Your task to perform on an android device: Open the web browser Image 0: 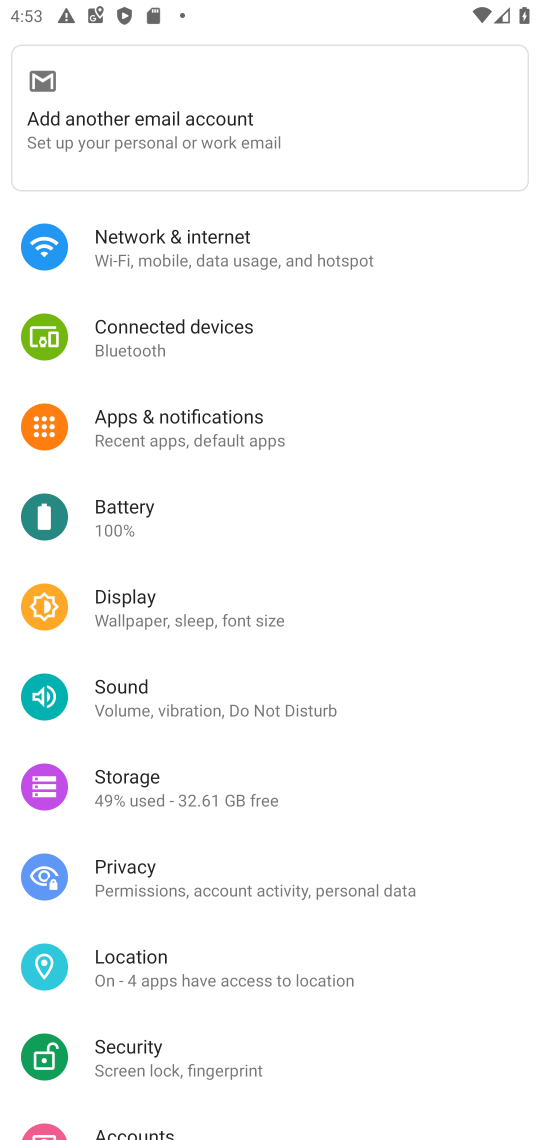
Step 0: press home button
Your task to perform on an android device: Open the web browser Image 1: 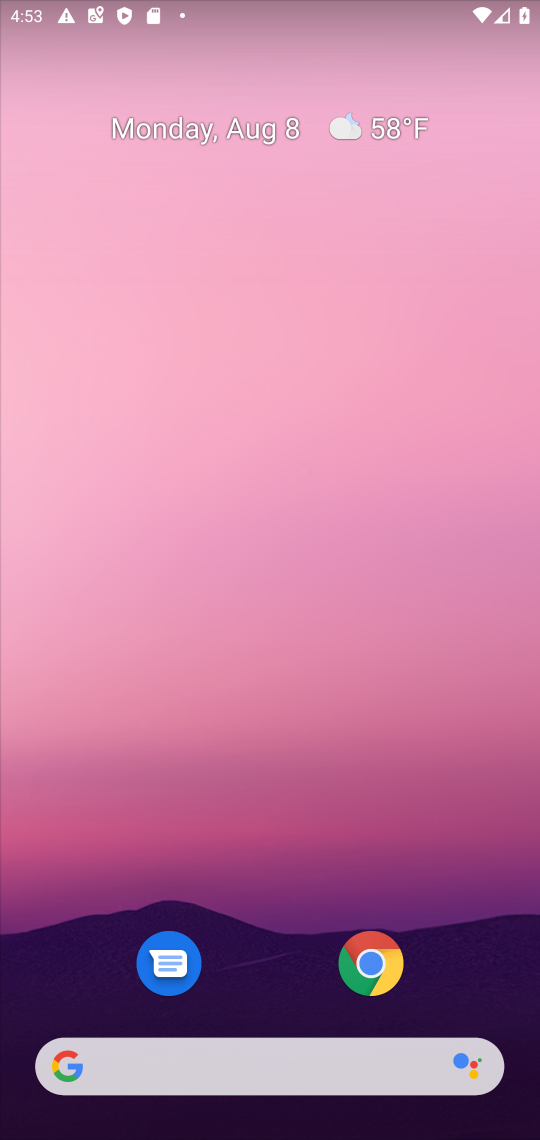
Step 1: click (367, 941)
Your task to perform on an android device: Open the web browser Image 2: 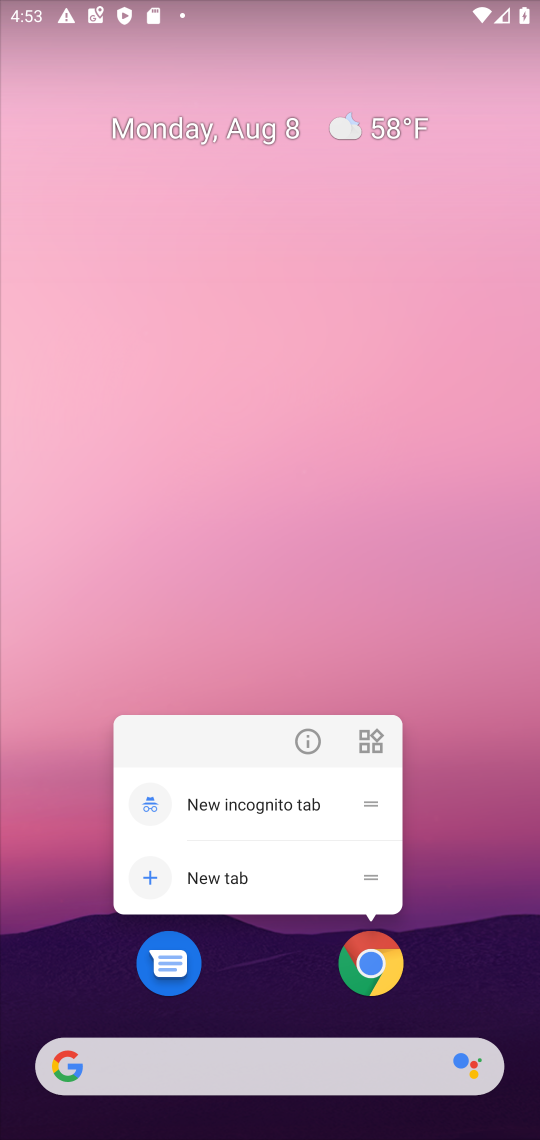
Step 2: click (400, 957)
Your task to perform on an android device: Open the web browser Image 3: 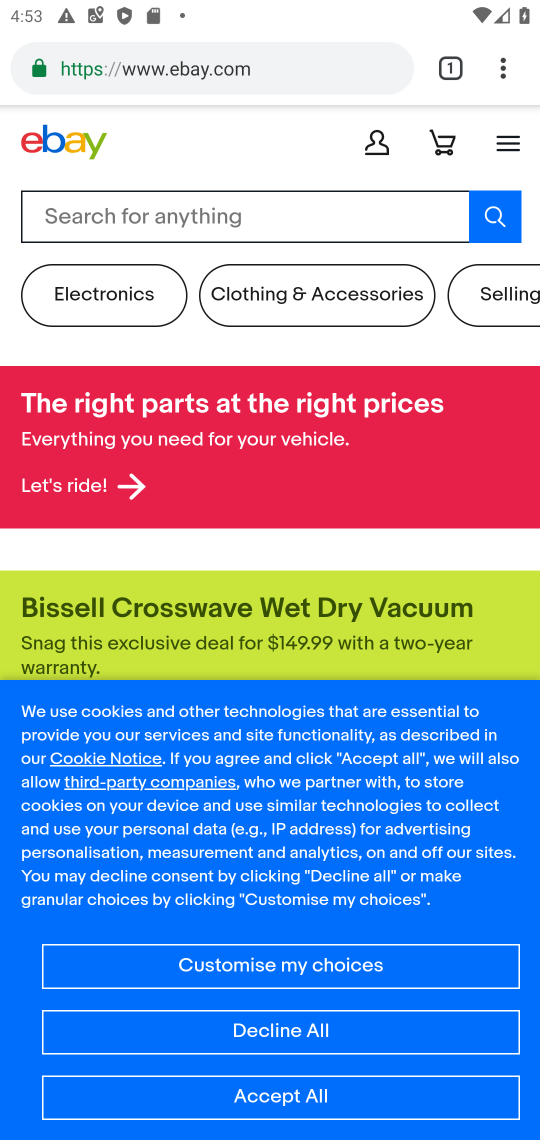
Step 3: task complete